Your task to perform on an android device: toggle translation in the chrome app Image 0: 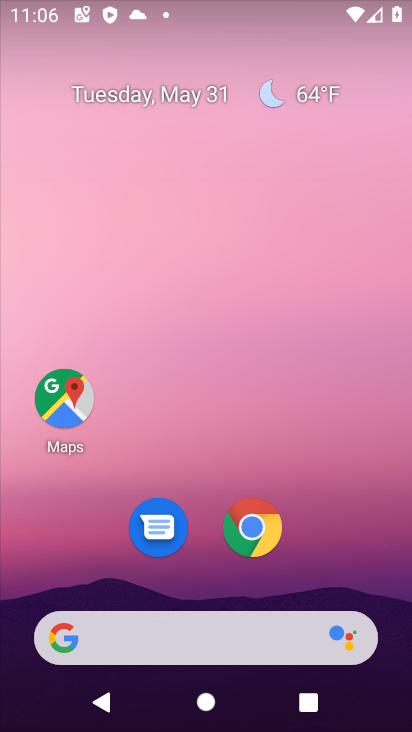
Step 0: click (281, 14)
Your task to perform on an android device: toggle translation in the chrome app Image 1: 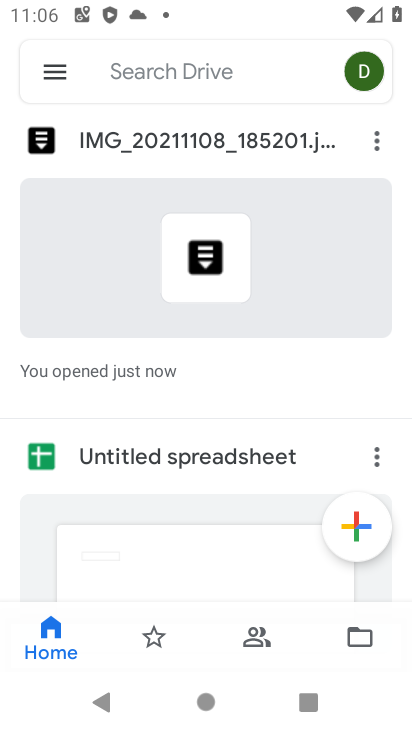
Step 1: press home button
Your task to perform on an android device: toggle translation in the chrome app Image 2: 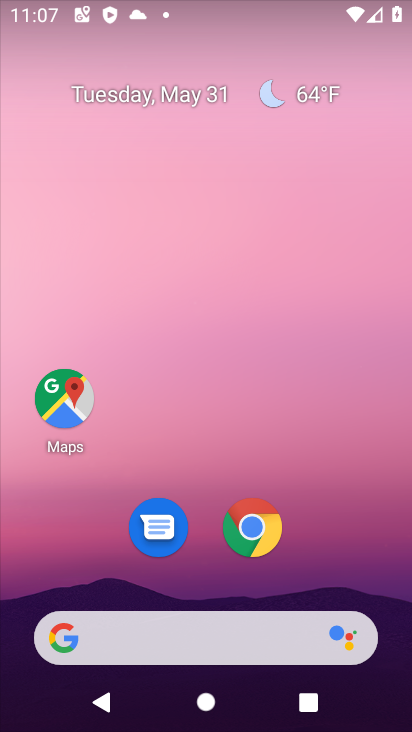
Step 2: click (261, 543)
Your task to perform on an android device: toggle translation in the chrome app Image 3: 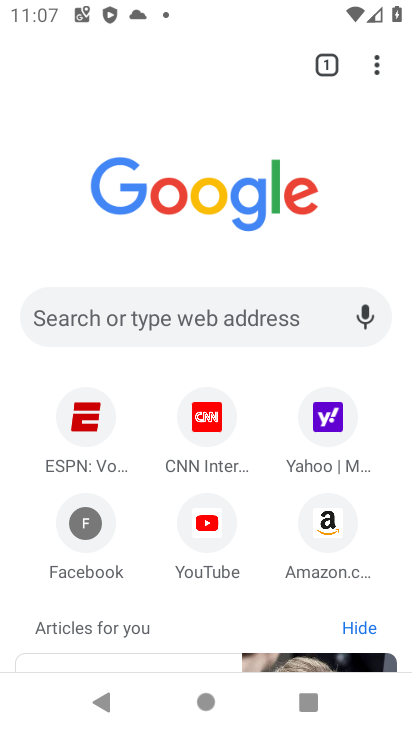
Step 3: click (375, 66)
Your task to perform on an android device: toggle translation in the chrome app Image 4: 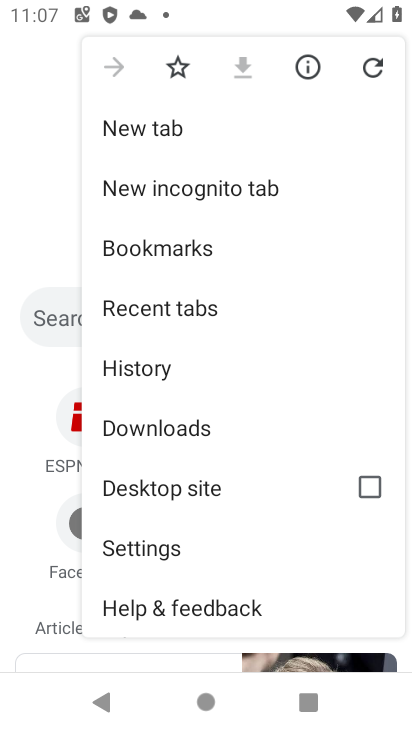
Step 4: click (170, 548)
Your task to perform on an android device: toggle translation in the chrome app Image 5: 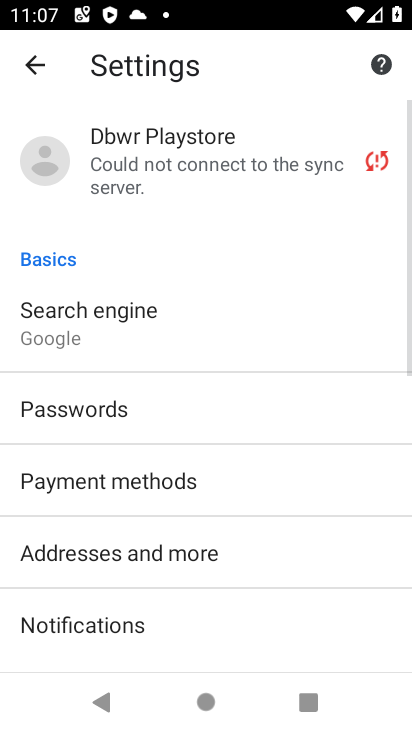
Step 5: drag from (212, 591) to (170, 201)
Your task to perform on an android device: toggle translation in the chrome app Image 6: 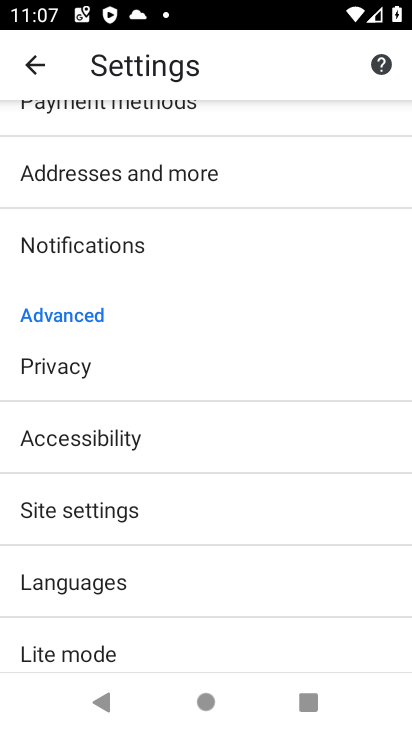
Step 6: click (86, 591)
Your task to perform on an android device: toggle translation in the chrome app Image 7: 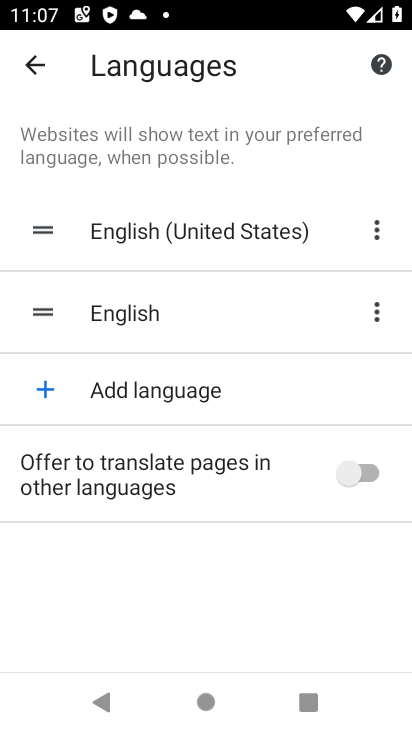
Step 7: click (340, 470)
Your task to perform on an android device: toggle translation in the chrome app Image 8: 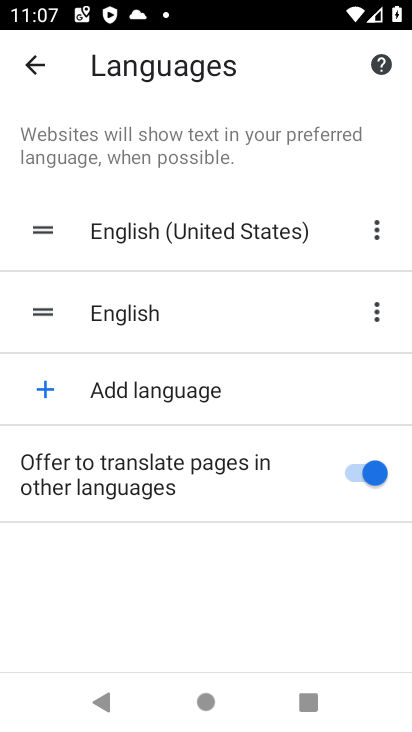
Step 8: task complete